Your task to perform on an android device: Show me popular games on the Play Store Image 0: 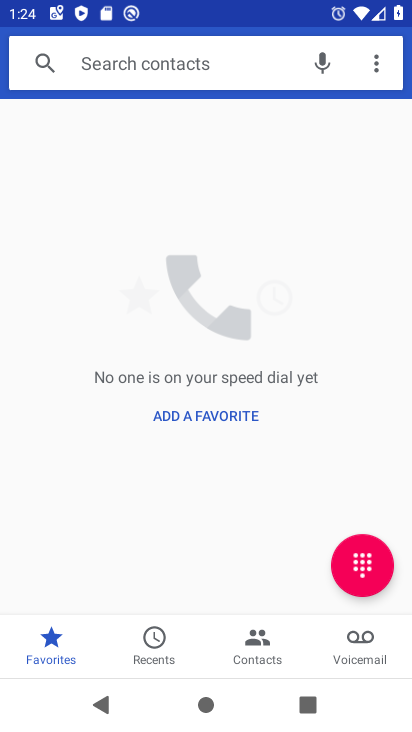
Step 0: press home button
Your task to perform on an android device: Show me popular games on the Play Store Image 1: 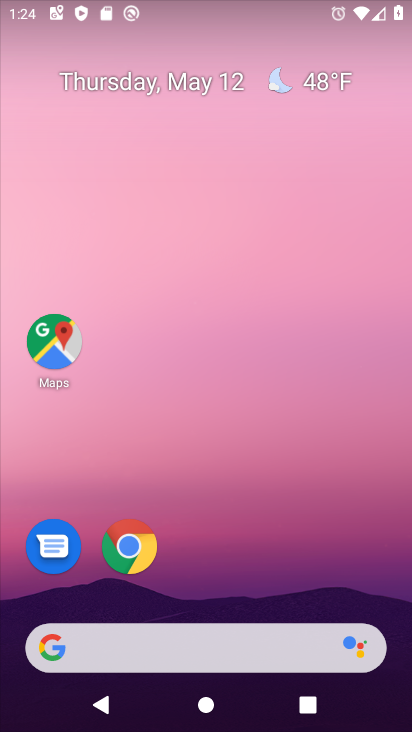
Step 1: drag from (194, 652) to (338, 211)
Your task to perform on an android device: Show me popular games on the Play Store Image 2: 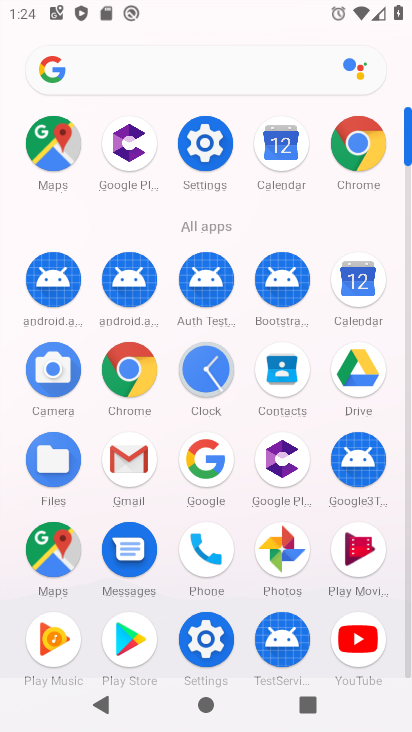
Step 2: click (133, 639)
Your task to perform on an android device: Show me popular games on the Play Store Image 3: 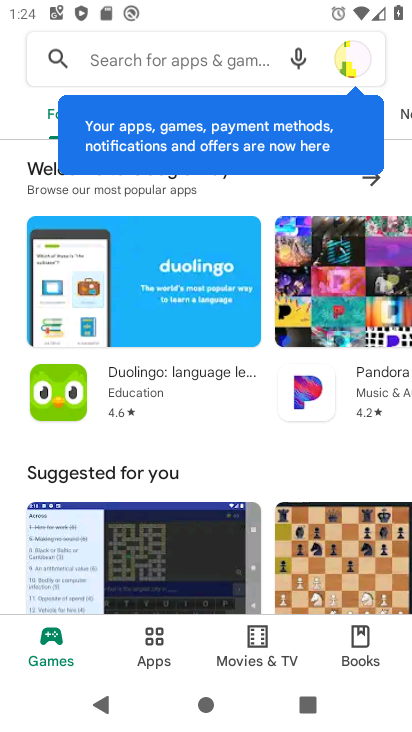
Step 3: drag from (216, 534) to (335, 186)
Your task to perform on an android device: Show me popular games on the Play Store Image 4: 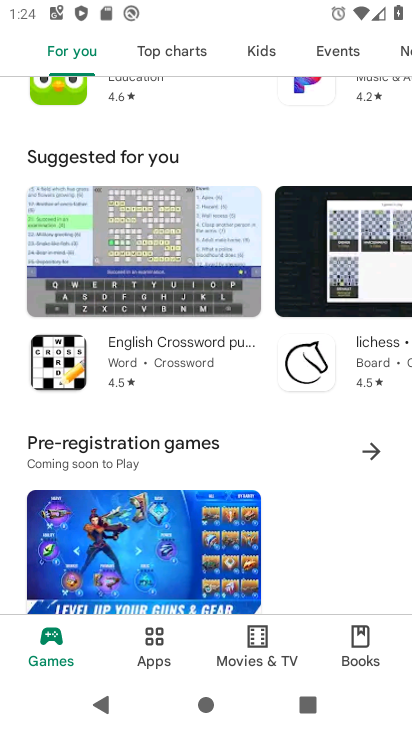
Step 4: drag from (278, 539) to (410, 258)
Your task to perform on an android device: Show me popular games on the Play Store Image 5: 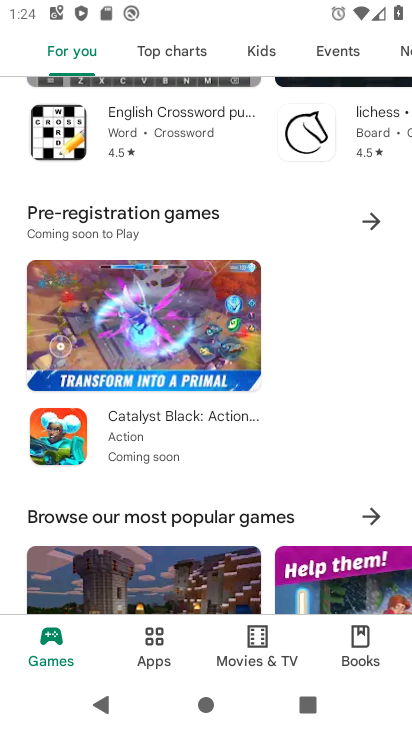
Step 5: click (370, 517)
Your task to perform on an android device: Show me popular games on the Play Store Image 6: 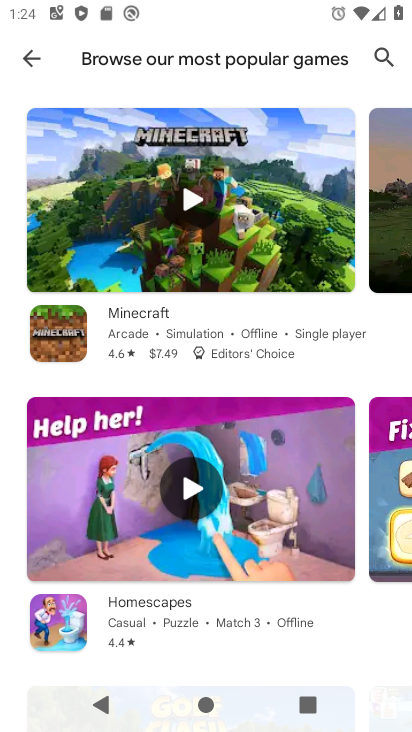
Step 6: task complete